Your task to perform on an android device: turn off location Image 0: 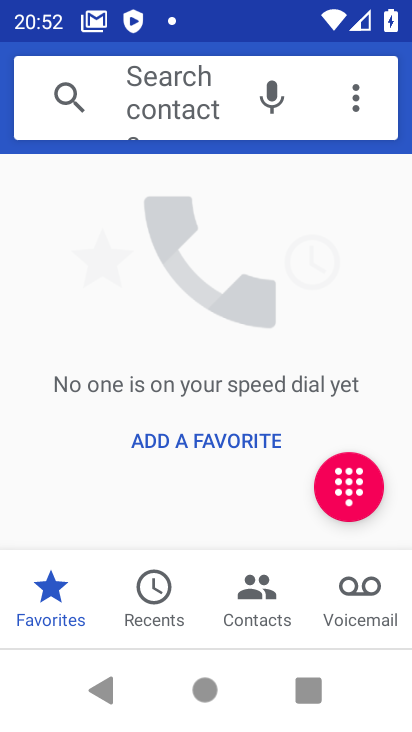
Step 0: press home button
Your task to perform on an android device: turn off location Image 1: 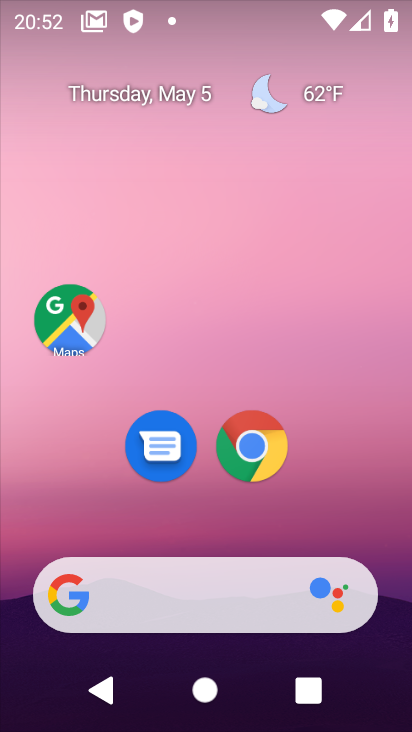
Step 1: drag from (264, 639) to (367, 191)
Your task to perform on an android device: turn off location Image 2: 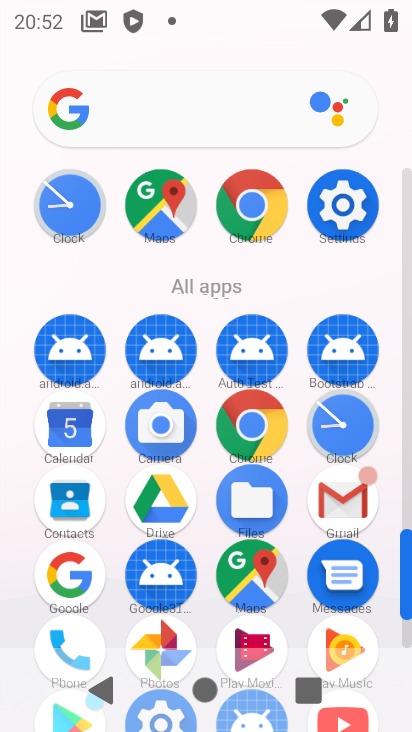
Step 2: click (350, 214)
Your task to perform on an android device: turn off location Image 3: 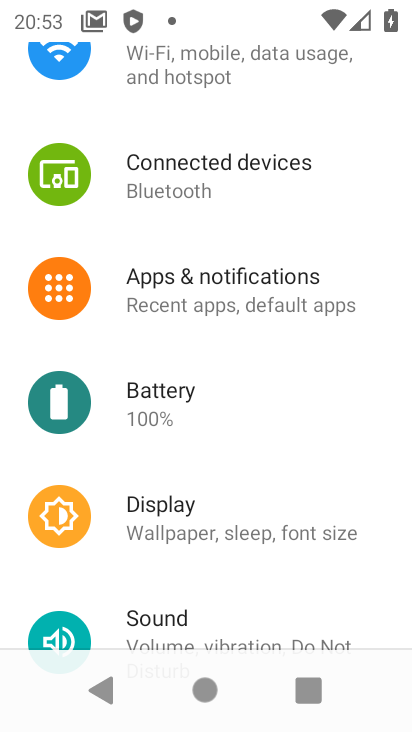
Step 3: drag from (140, 225) to (115, 383)
Your task to perform on an android device: turn off location Image 4: 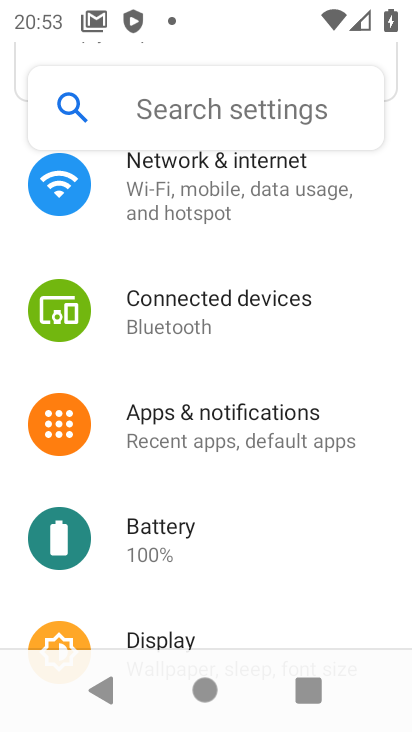
Step 4: click (152, 106)
Your task to perform on an android device: turn off location Image 5: 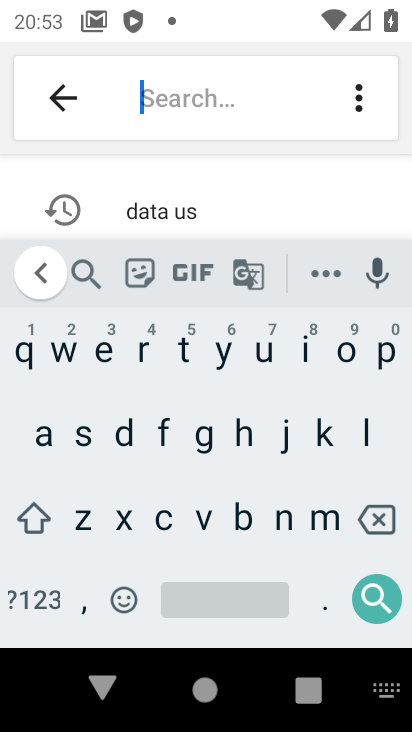
Step 5: click (367, 424)
Your task to perform on an android device: turn off location Image 6: 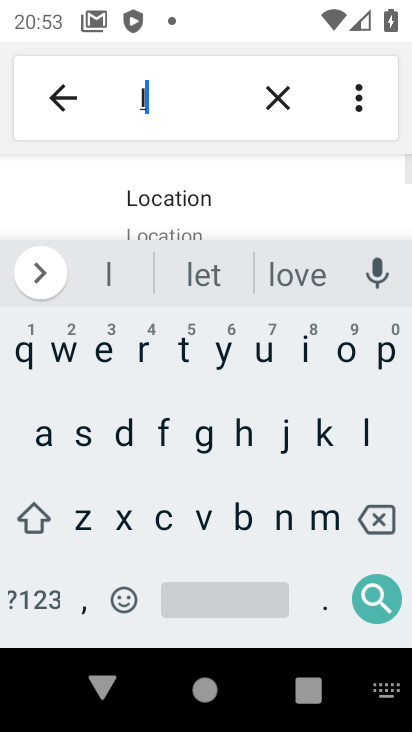
Step 6: click (341, 364)
Your task to perform on an android device: turn off location Image 7: 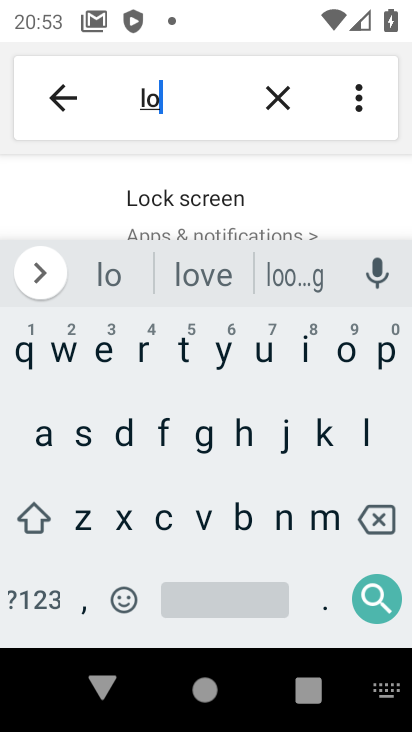
Step 7: click (157, 517)
Your task to perform on an android device: turn off location Image 8: 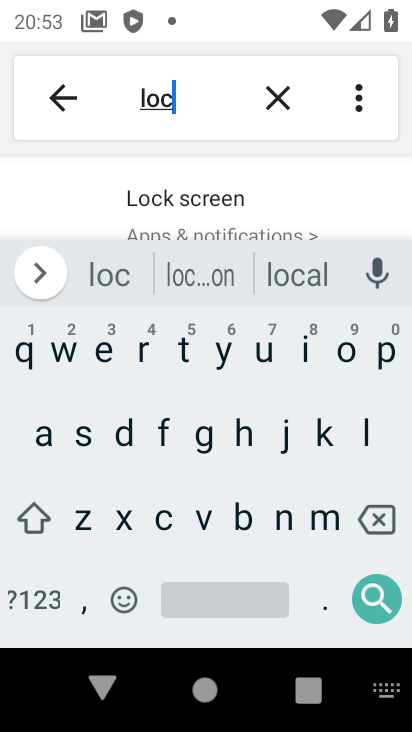
Step 8: click (38, 437)
Your task to perform on an android device: turn off location Image 9: 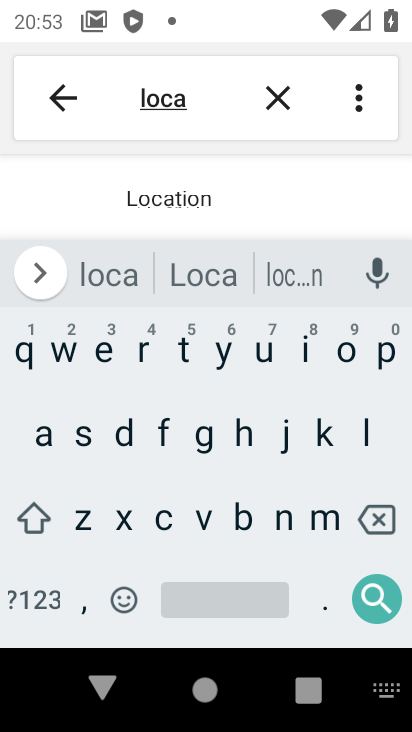
Step 9: press back button
Your task to perform on an android device: turn off location Image 10: 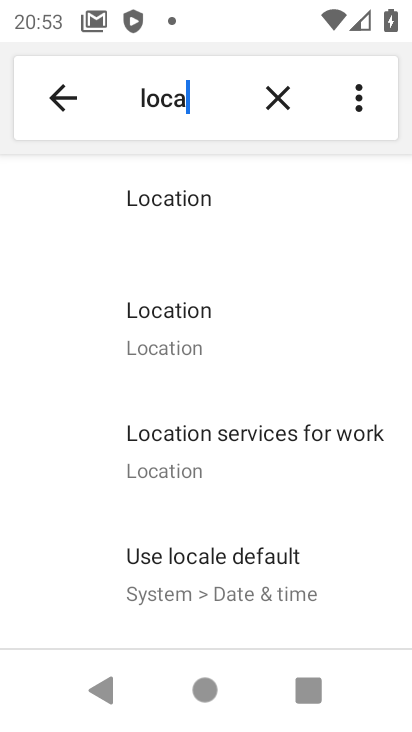
Step 10: click (207, 348)
Your task to perform on an android device: turn off location Image 11: 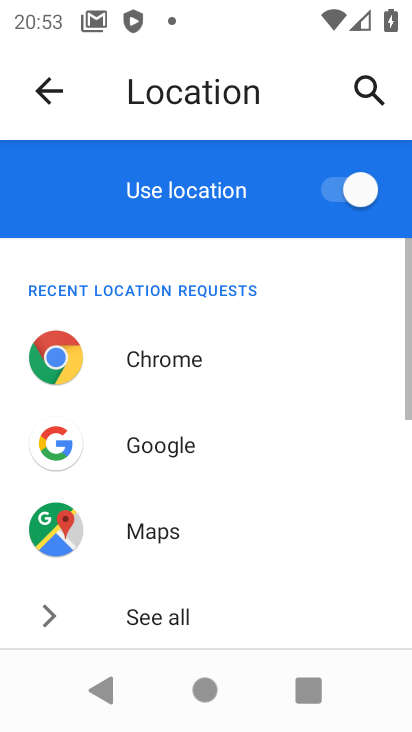
Step 11: click (333, 189)
Your task to perform on an android device: turn off location Image 12: 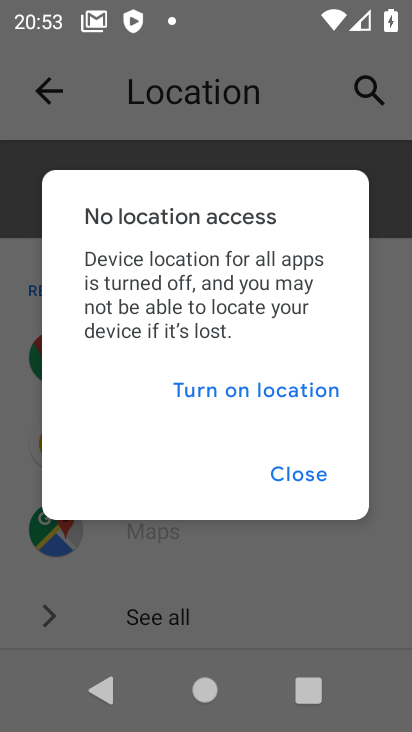
Step 12: task complete